Your task to perform on an android device: Go to battery settings Image 0: 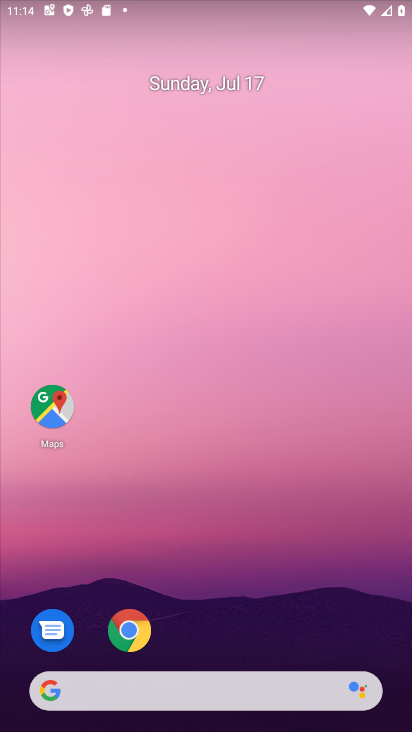
Step 0: drag from (269, 630) to (282, 320)
Your task to perform on an android device: Go to battery settings Image 1: 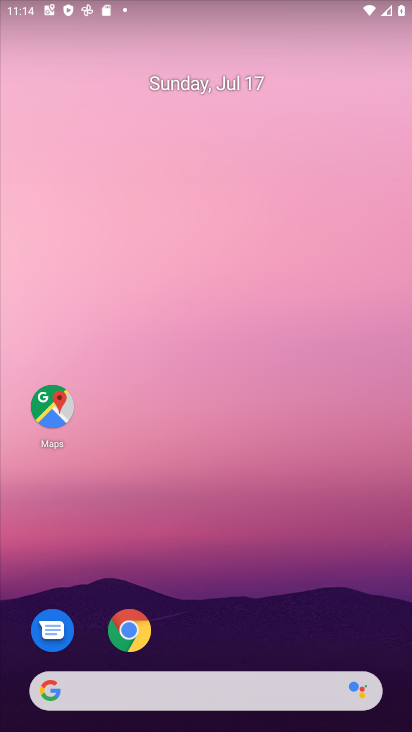
Step 1: drag from (240, 643) to (233, 156)
Your task to perform on an android device: Go to battery settings Image 2: 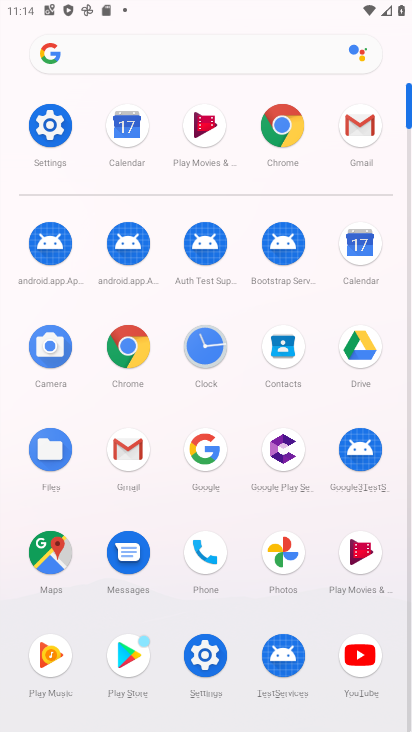
Step 2: click (197, 661)
Your task to perform on an android device: Go to battery settings Image 3: 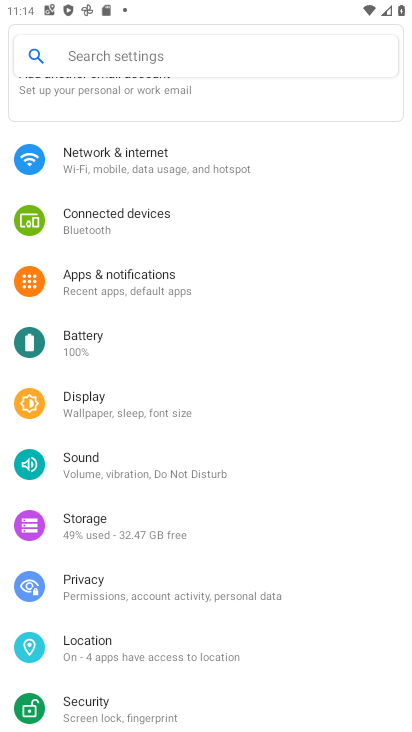
Step 3: click (144, 355)
Your task to perform on an android device: Go to battery settings Image 4: 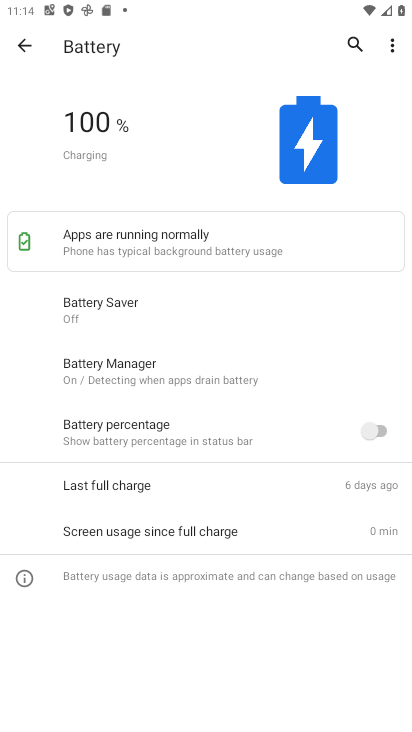
Step 4: task complete